Your task to perform on an android device: change your default location settings in chrome Image 0: 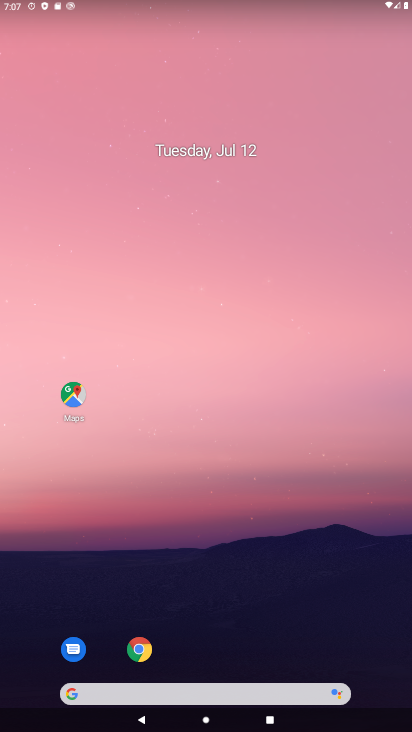
Step 0: click (140, 650)
Your task to perform on an android device: change your default location settings in chrome Image 1: 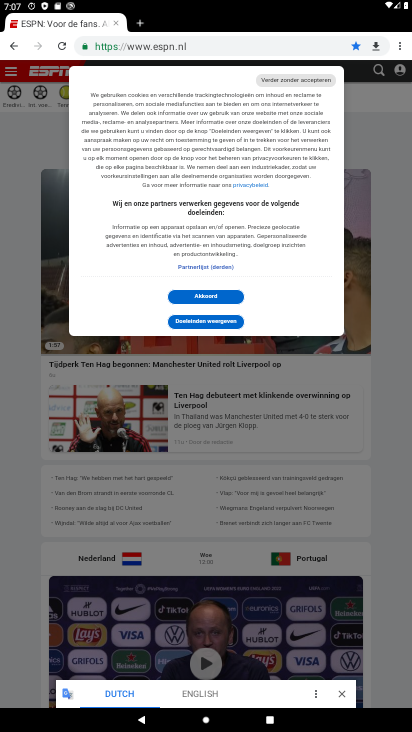
Step 1: click (401, 46)
Your task to perform on an android device: change your default location settings in chrome Image 2: 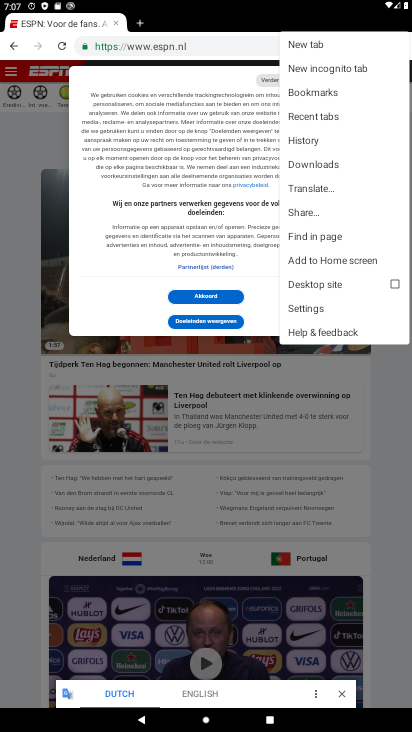
Step 2: click (313, 306)
Your task to perform on an android device: change your default location settings in chrome Image 3: 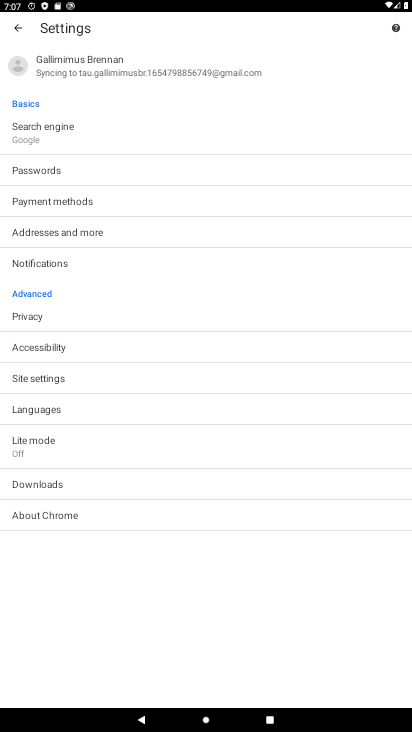
Step 3: click (43, 378)
Your task to perform on an android device: change your default location settings in chrome Image 4: 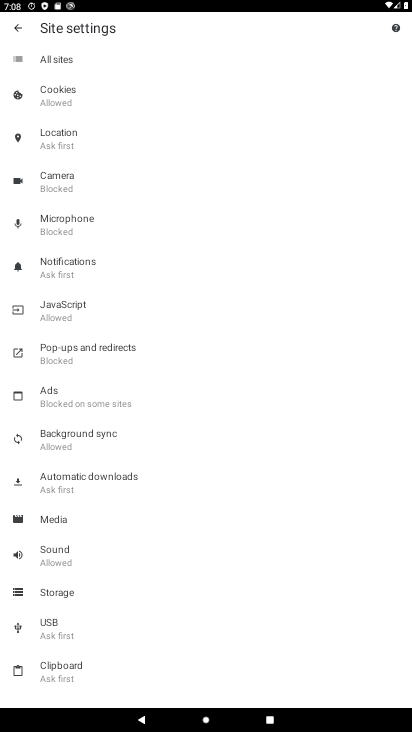
Step 4: click (76, 144)
Your task to perform on an android device: change your default location settings in chrome Image 5: 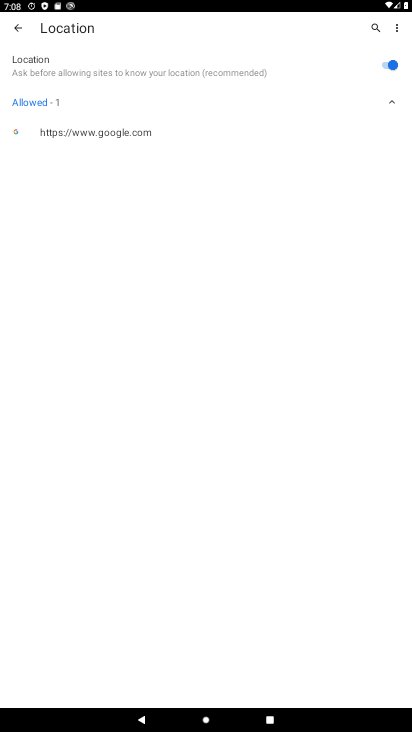
Step 5: click (384, 62)
Your task to perform on an android device: change your default location settings in chrome Image 6: 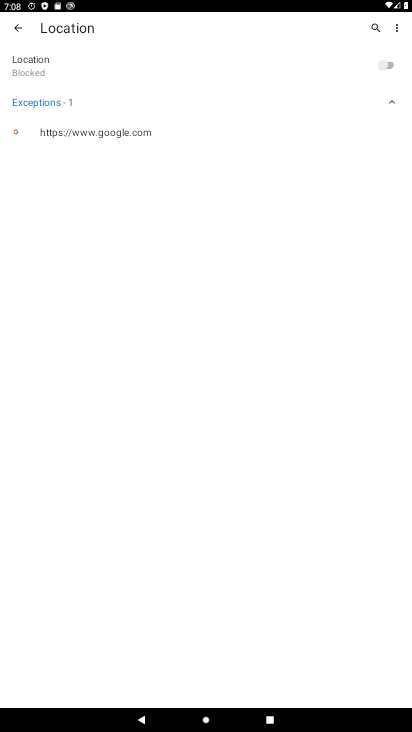
Step 6: task complete